Your task to perform on an android device: Open internet settings Image 0: 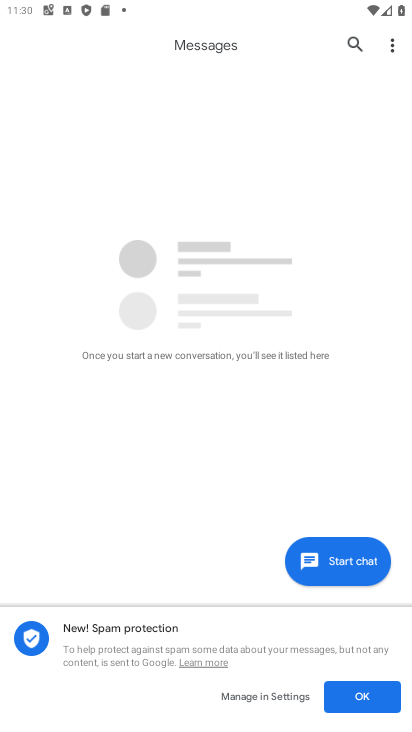
Step 0: press home button
Your task to perform on an android device: Open internet settings Image 1: 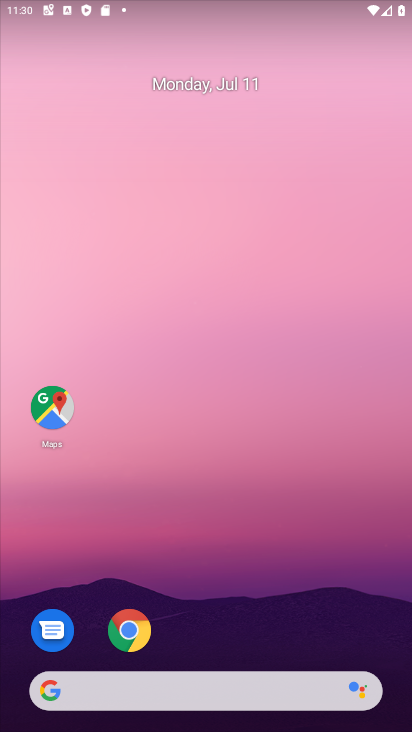
Step 1: drag from (324, 637) to (243, 113)
Your task to perform on an android device: Open internet settings Image 2: 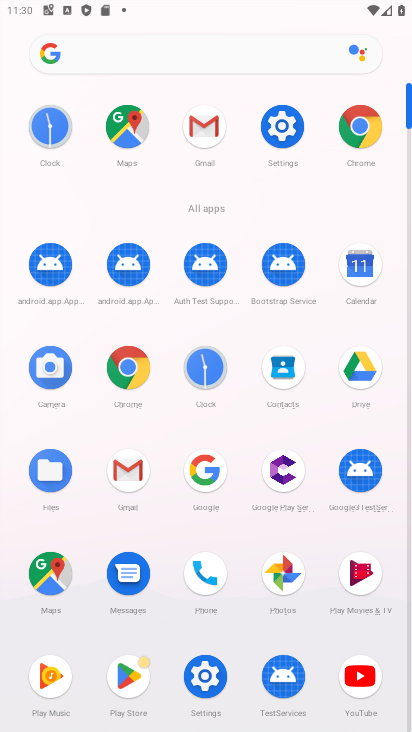
Step 2: click (278, 115)
Your task to perform on an android device: Open internet settings Image 3: 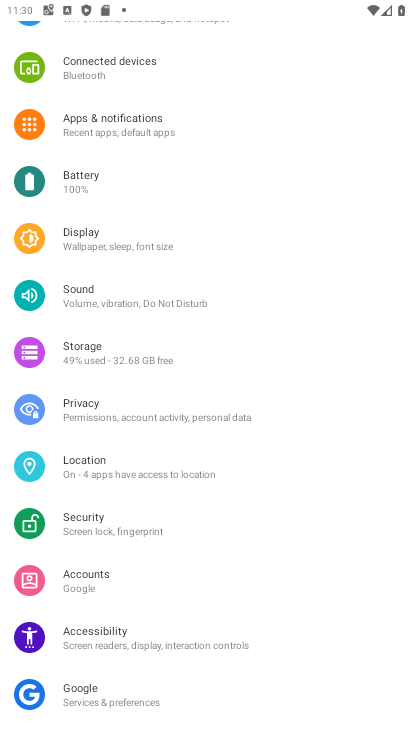
Step 3: drag from (234, 81) to (236, 347)
Your task to perform on an android device: Open internet settings Image 4: 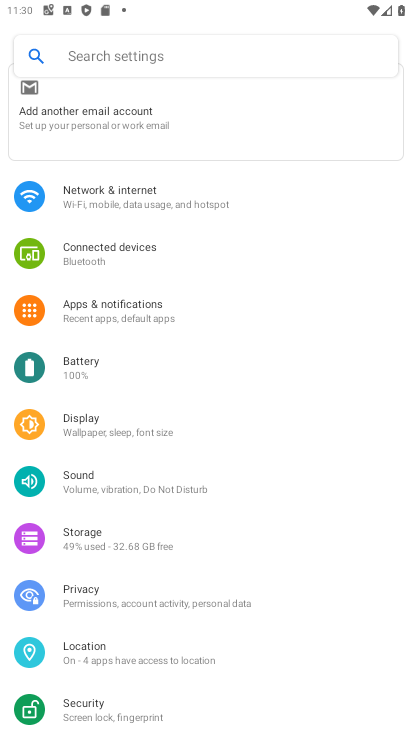
Step 4: click (100, 198)
Your task to perform on an android device: Open internet settings Image 5: 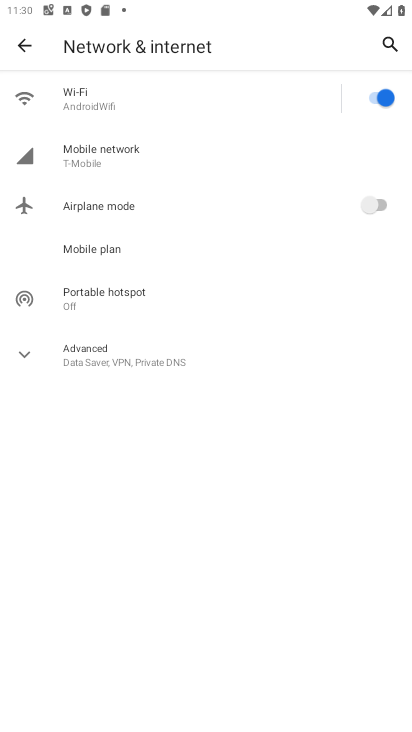
Step 5: click (70, 90)
Your task to perform on an android device: Open internet settings Image 6: 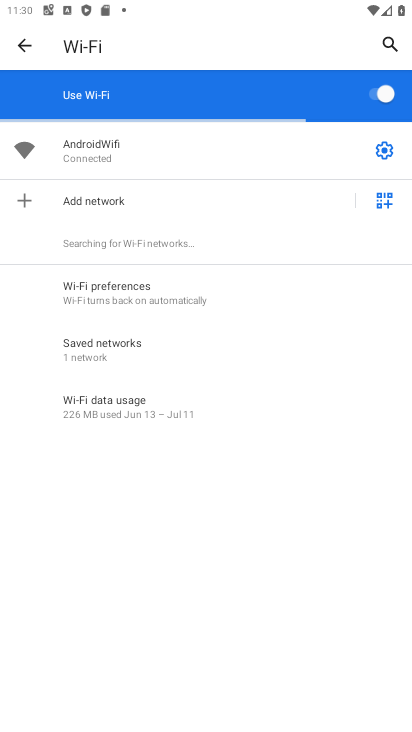
Step 6: task complete